Your task to perform on an android device: set default search engine in the chrome app Image 0: 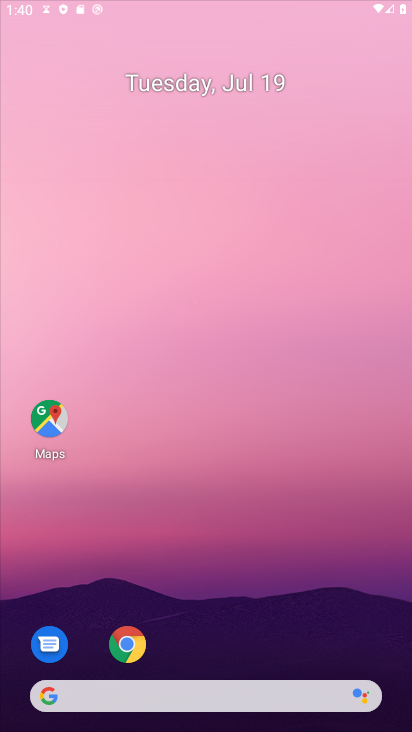
Step 0: drag from (205, 523) to (178, 154)
Your task to perform on an android device: set default search engine in the chrome app Image 1: 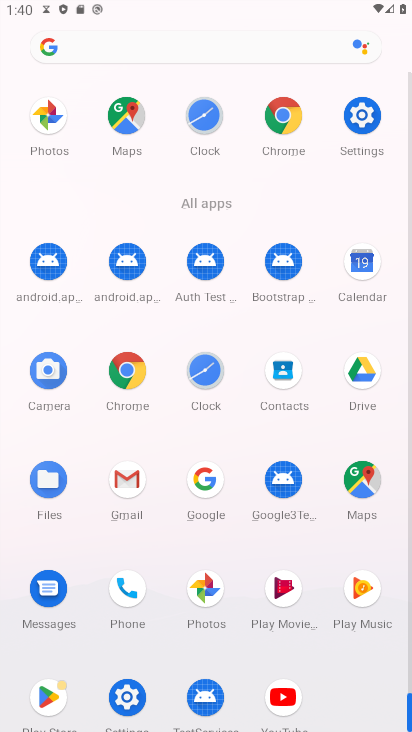
Step 1: click (283, 122)
Your task to perform on an android device: set default search engine in the chrome app Image 2: 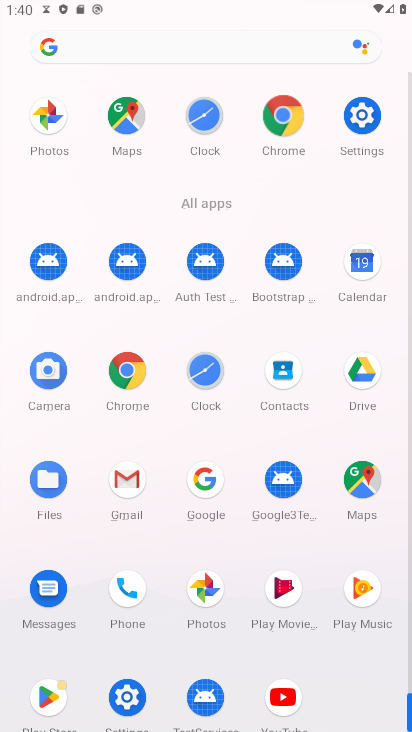
Step 2: click (282, 119)
Your task to perform on an android device: set default search engine in the chrome app Image 3: 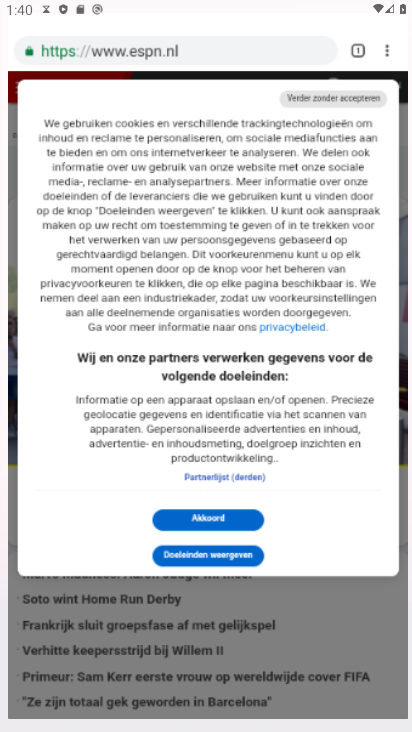
Step 3: click (281, 113)
Your task to perform on an android device: set default search engine in the chrome app Image 4: 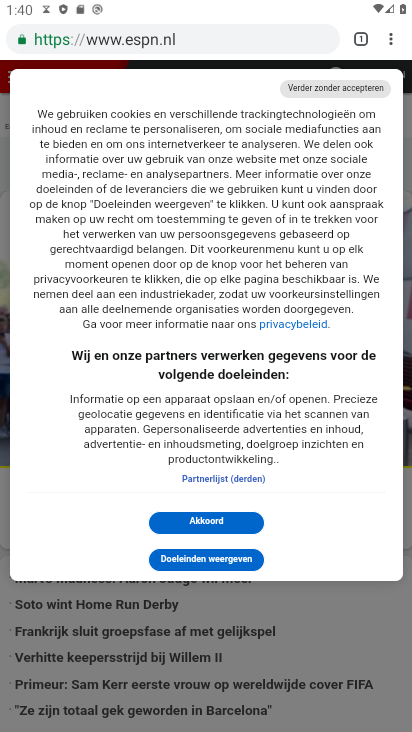
Step 4: drag from (391, 38) to (253, 472)
Your task to perform on an android device: set default search engine in the chrome app Image 5: 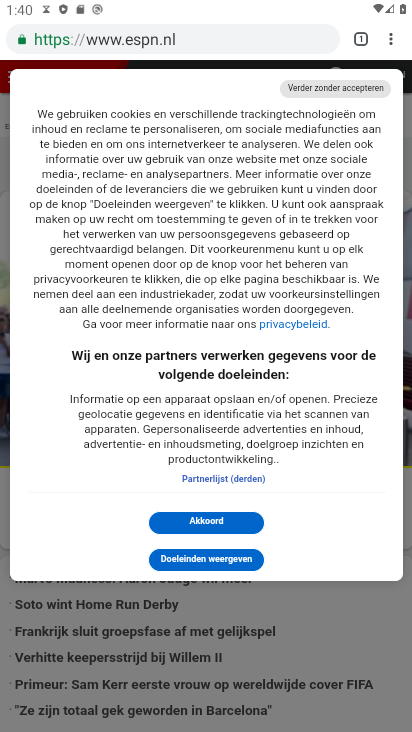
Step 5: click (253, 472)
Your task to perform on an android device: set default search engine in the chrome app Image 6: 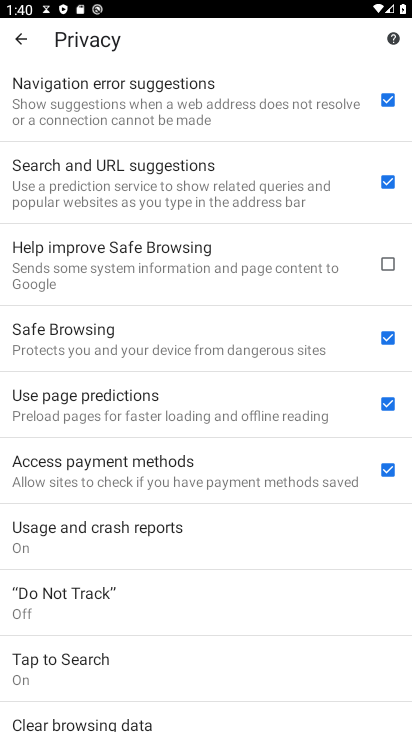
Step 6: click (19, 39)
Your task to perform on an android device: set default search engine in the chrome app Image 7: 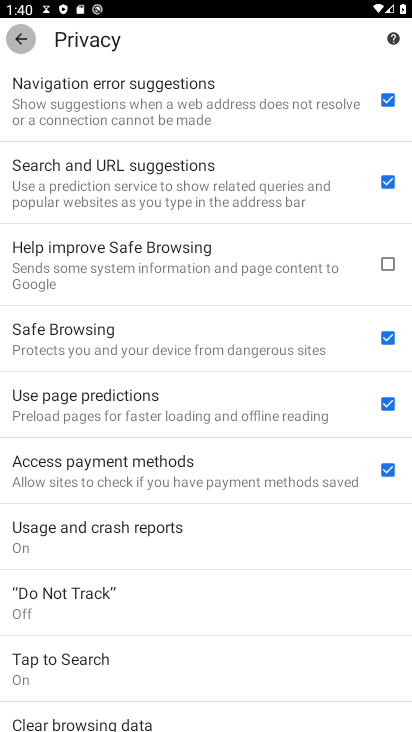
Step 7: click (18, 39)
Your task to perform on an android device: set default search engine in the chrome app Image 8: 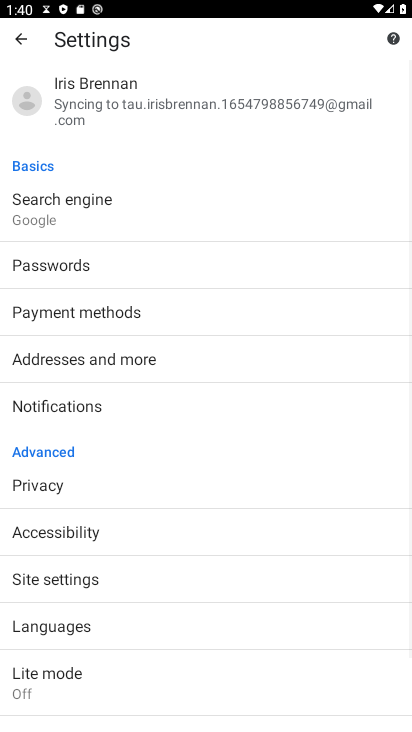
Step 8: click (33, 195)
Your task to perform on an android device: set default search engine in the chrome app Image 9: 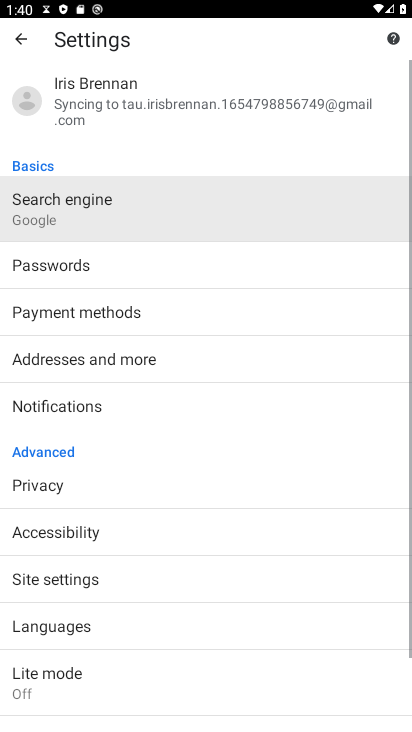
Step 9: click (33, 195)
Your task to perform on an android device: set default search engine in the chrome app Image 10: 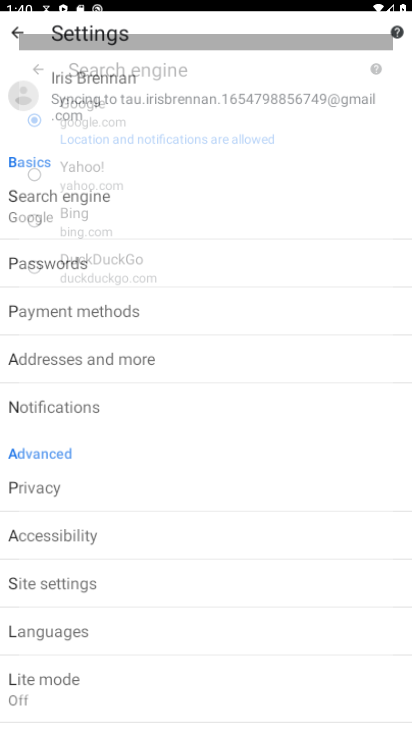
Step 10: click (33, 195)
Your task to perform on an android device: set default search engine in the chrome app Image 11: 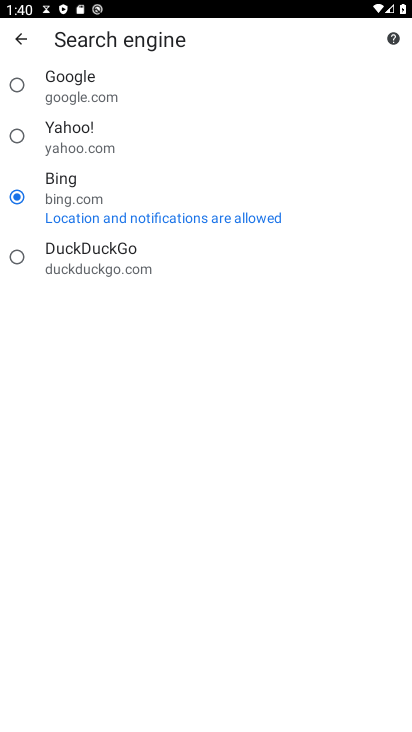
Step 11: click (16, 79)
Your task to perform on an android device: set default search engine in the chrome app Image 12: 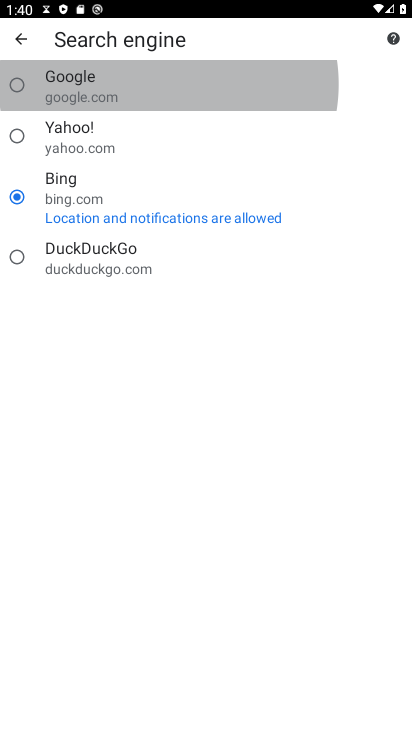
Step 12: click (16, 79)
Your task to perform on an android device: set default search engine in the chrome app Image 13: 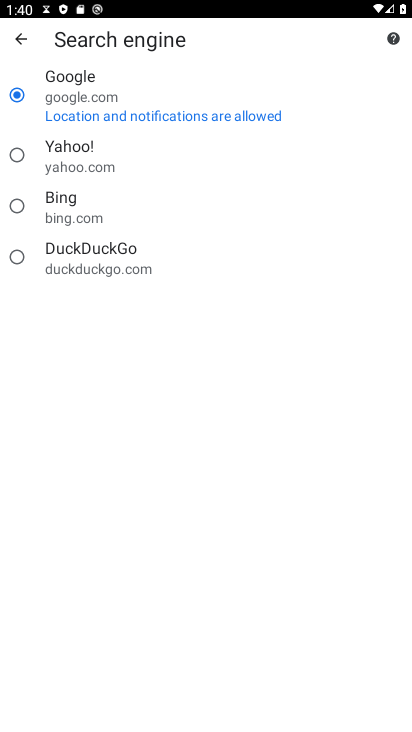
Step 13: task complete